Your task to perform on an android device: turn on the 12-hour format for clock Image 0: 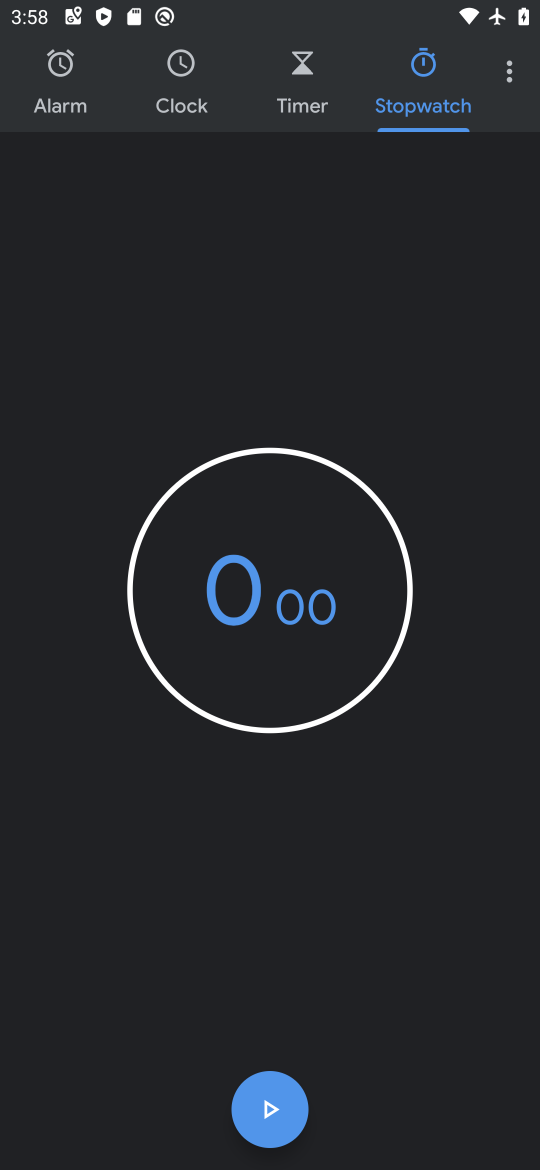
Step 0: press home button
Your task to perform on an android device: turn on the 12-hour format for clock Image 1: 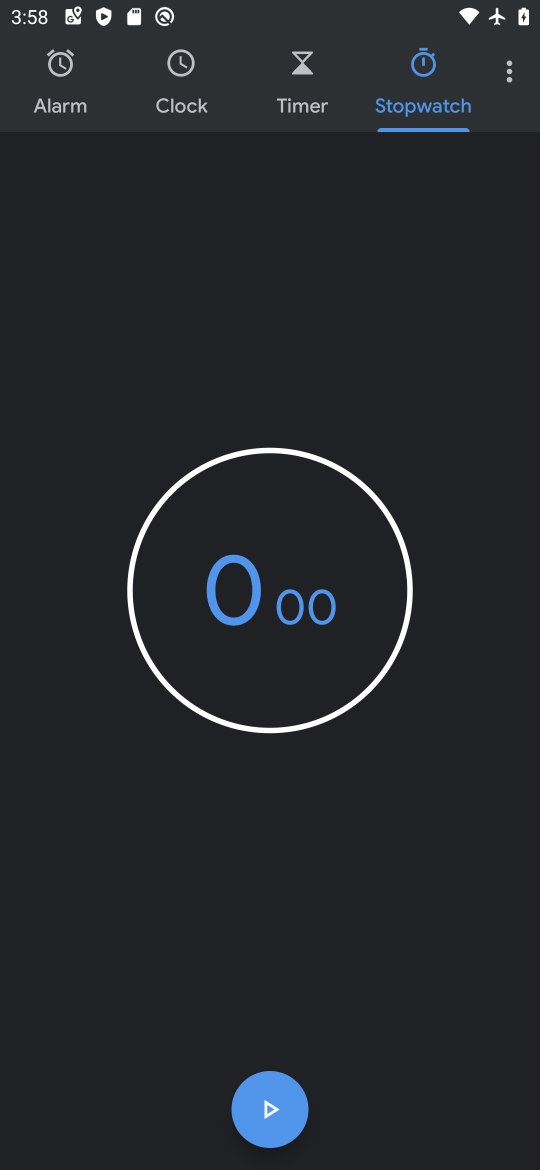
Step 1: press home button
Your task to perform on an android device: turn on the 12-hour format for clock Image 2: 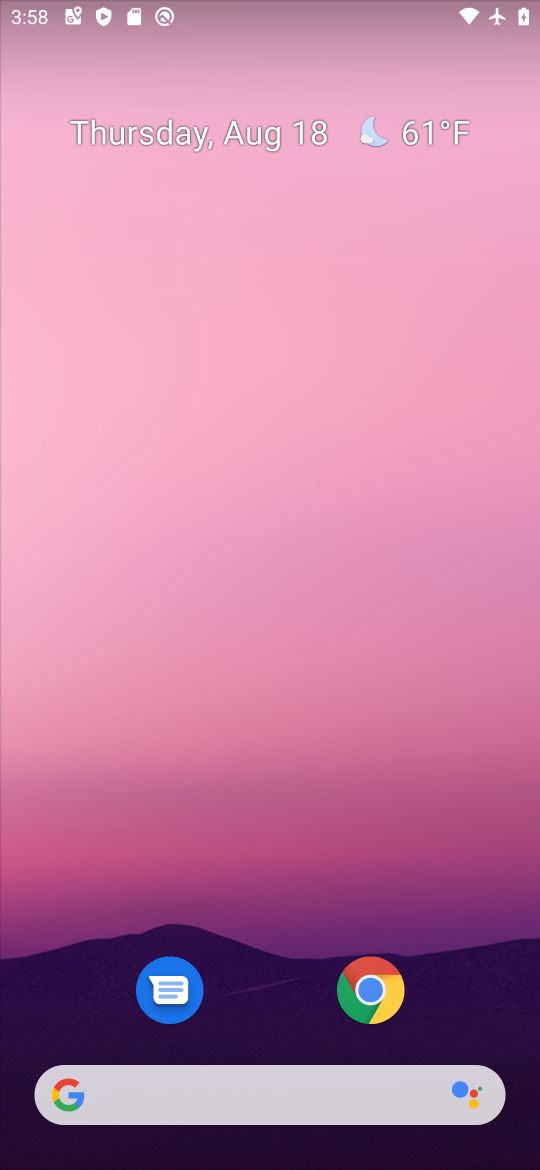
Step 2: drag from (278, 818) to (407, 6)
Your task to perform on an android device: turn on the 12-hour format for clock Image 3: 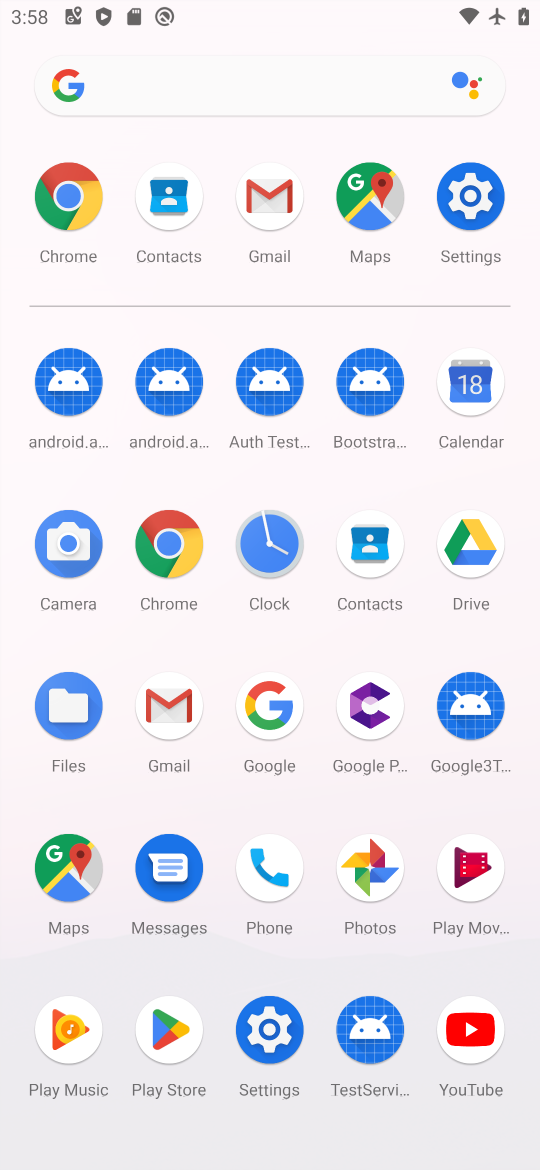
Step 3: click (284, 517)
Your task to perform on an android device: turn on the 12-hour format for clock Image 4: 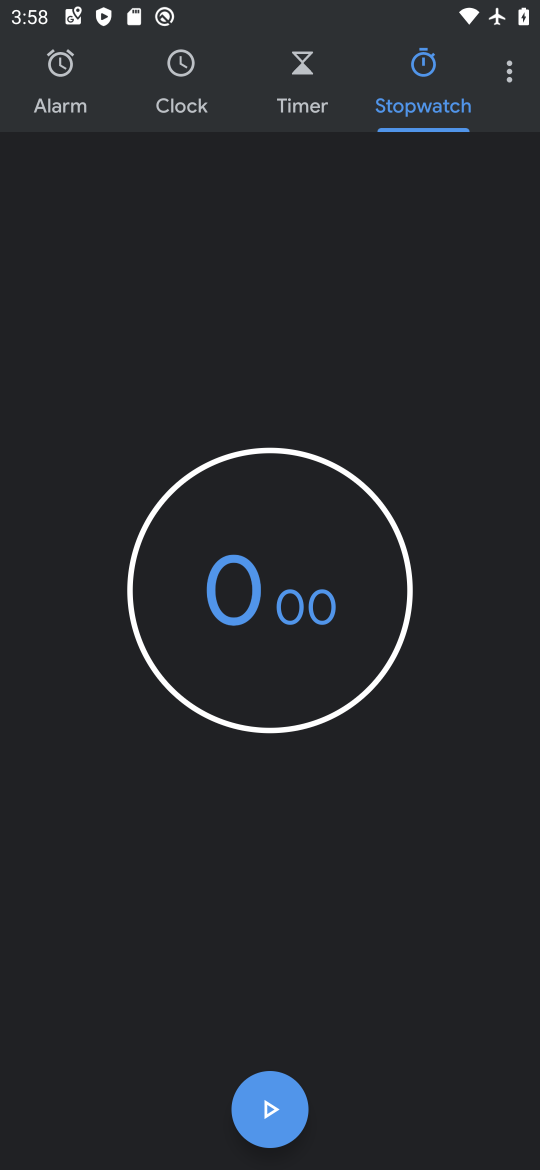
Step 4: drag from (514, 63) to (360, 149)
Your task to perform on an android device: turn on the 12-hour format for clock Image 5: 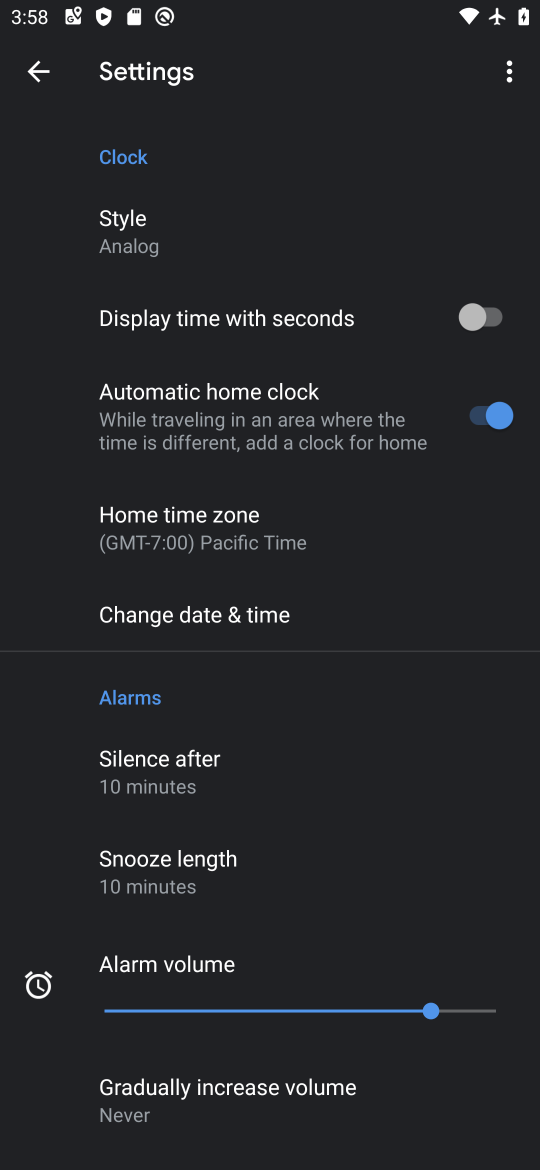
Step 5: click (257, 622)
Your task to perform on an android device: turn on the 12-hour format for clock Image 6: 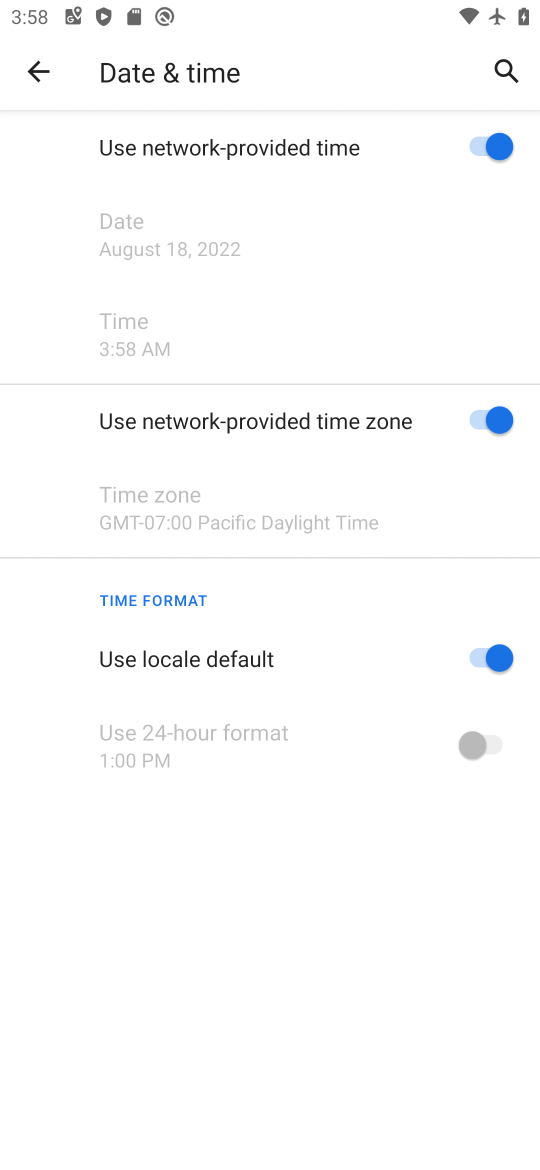
Step 6: task complete